Your task to perform on an android device: What is the news today? Image 0: 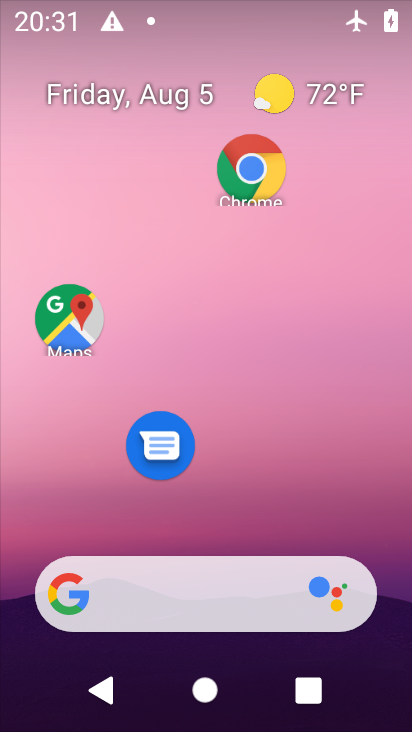
Step 0: drag from (218, 524) to (209, 135)
Your task to perform on an android device: What is the news today? Image 1: 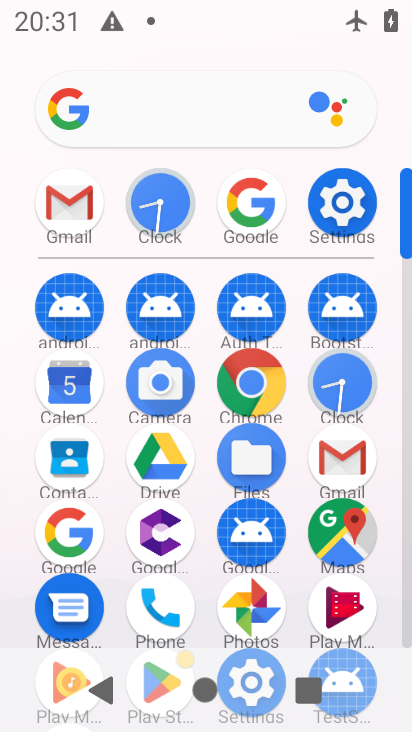
Step 1: click (244, 209)
Your task to perform on an android device: What is the news today? Image 2: 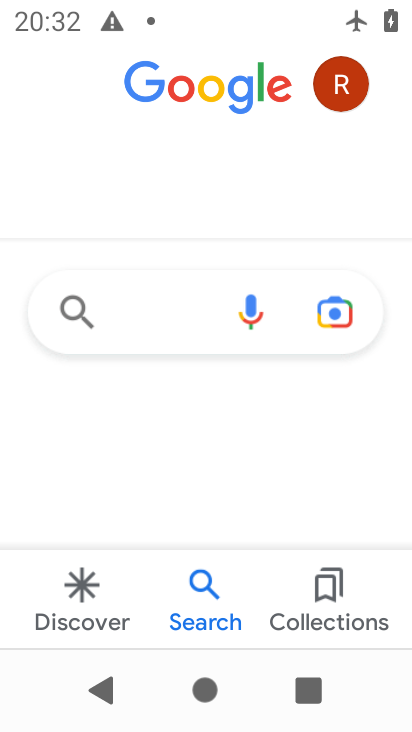
Step 2: click (168, 313)
Your task to perform on an android device: What is the news today? Image 3: 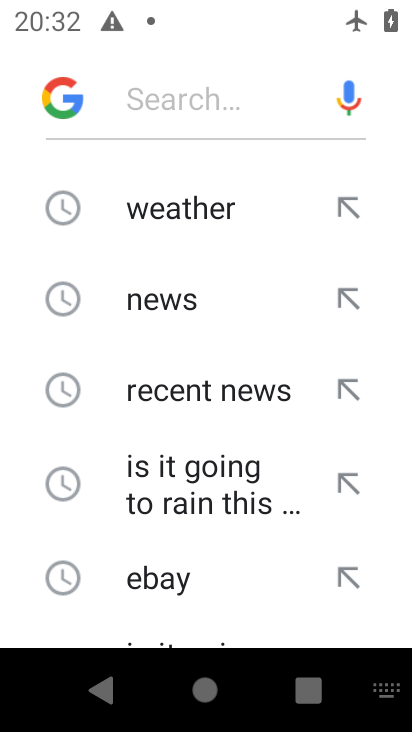
Step 3: click (186, 289)
Your task to perform on an android device: What is the news today? Image 4: 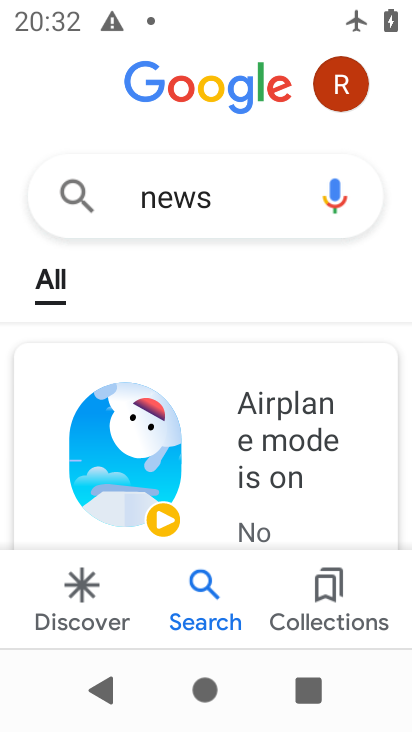
Step 4: task complete